Your task to perform on an android device: toggle airplane mode Image 0: 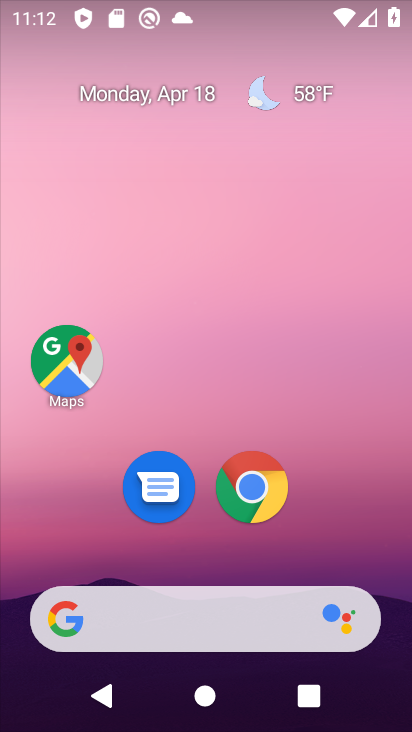
Step 0: drag from (357, 12) to (408, 451)
Your task to perform on an android device: toggle airplane mode Image 1: 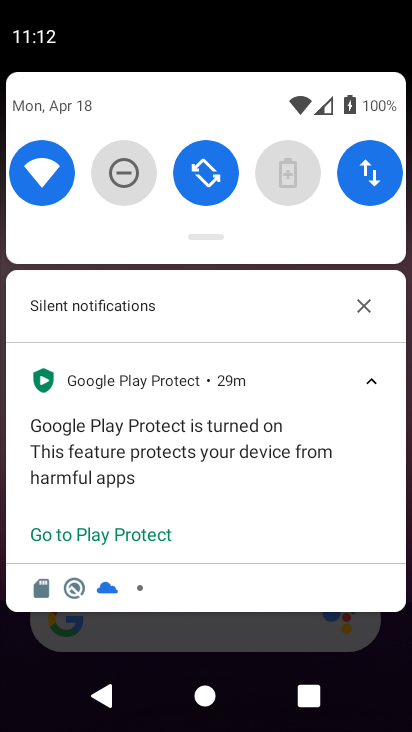
Step 1: drag from (321, 194) to (333, 458)
Your task to perform on an android device: toggle airplane mode Image 2: 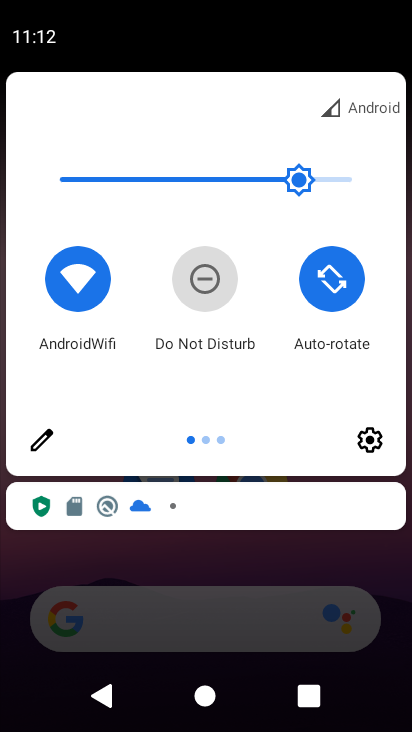
Step 2: drag from (343, 318) to (139, 307)
Your task to perform on an android device: toggle airplane mode Image 3: 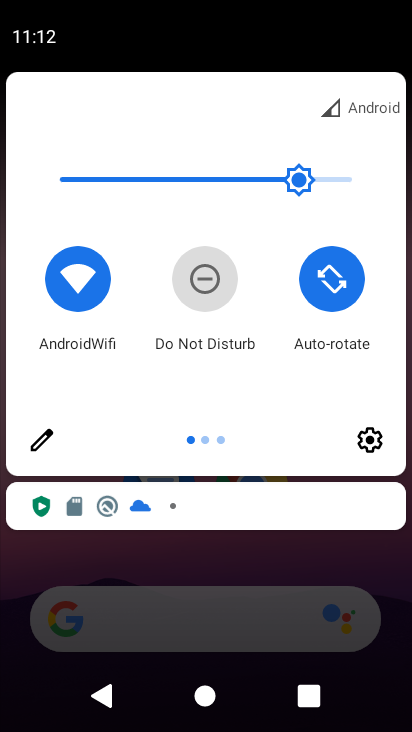
Step 3: drag from (378, 326) to (2, 273)
Your task to perform on an android device: toggle airplane mode Image 4: 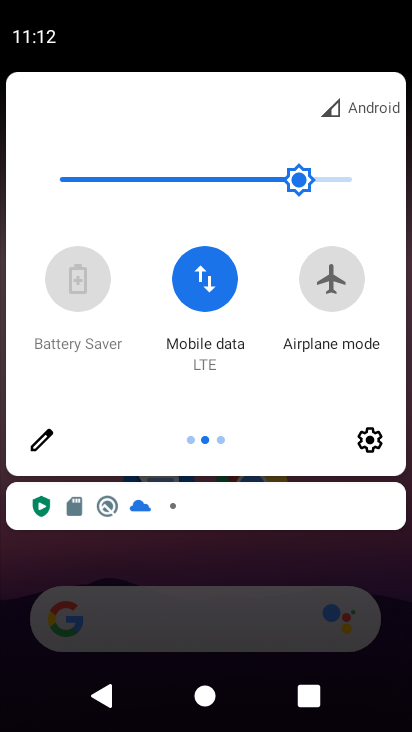
Step 4: click (312, 300)
Your task to perform on an android device: toggle airplane mode Image 5: 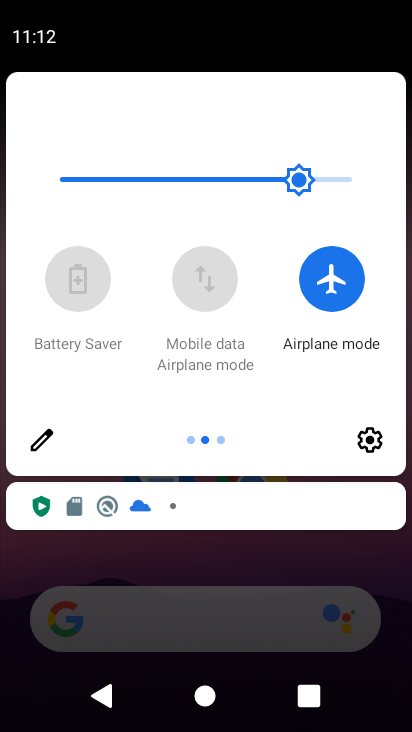
Step 5: task complete